Your task to perform on an android device: open app "Speedtest by Ookla" (install if not already installed) Image 0: 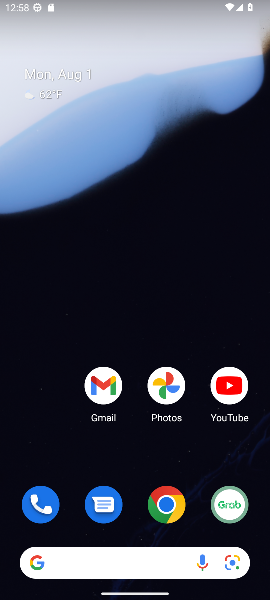
Step 0: drag from (151, 553) to (166, 54)
Your task to perform on an android device: open app "Speedtest by Ookla" (install if not already installed) Image 1: 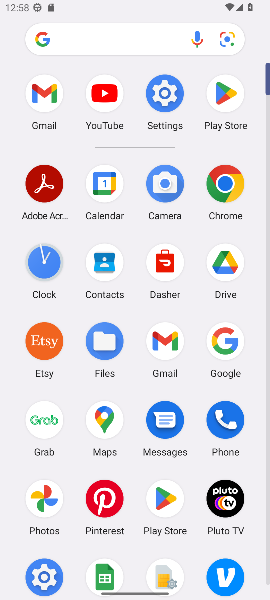
Step 1: click (227, 91)
Your task to perform on an android device: open app "Speedtest by Ookla" (install if not already installed) Image 2: 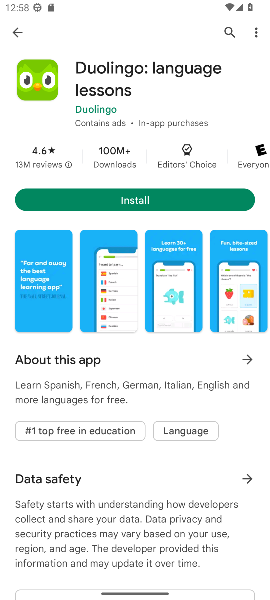
Step 2: click (230, 28)
Your task to perform on an android device: open app "Speedtest by Ookla" (install if not already installed) Image 3: 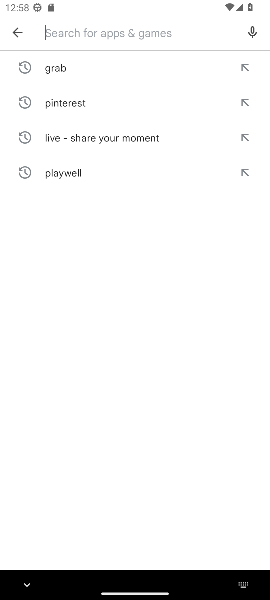
Step 3: type "speedtest by ookla"
Your task to perform on an android device: open app "Speedtest by Ookla" (install if not already installed) Image 4: 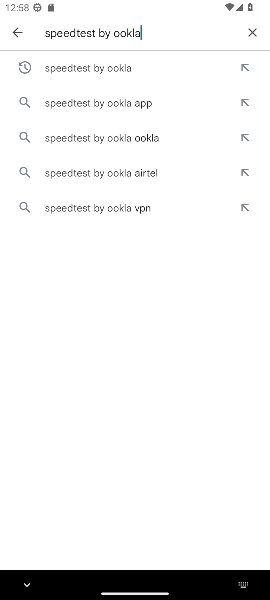
Step 4: click (131, 66)
Your task to perform on an android device: open app "Speedtest by Ookla" (install if not already installed) Image 5: 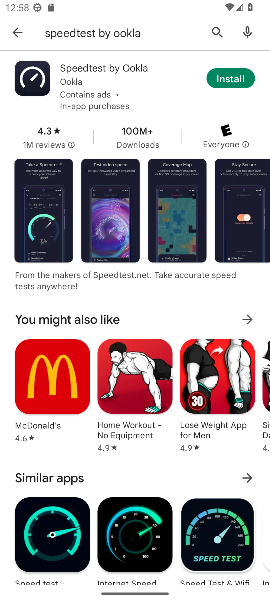
Step 5: click (245, 81)
Your task to perform on an android device: open app "Speedtest by Ookla" (install if not already installed) Image 6: 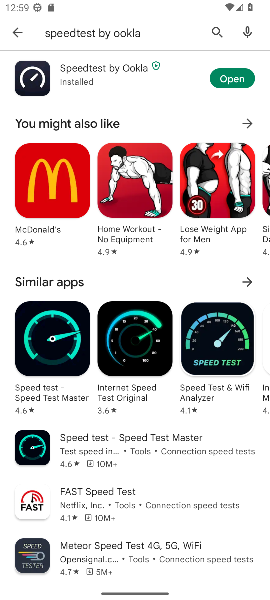
Step 6: task complete